Your task to perform on an android device: Open the calendar app, open the side menu, and click the "Day" option Image 0: 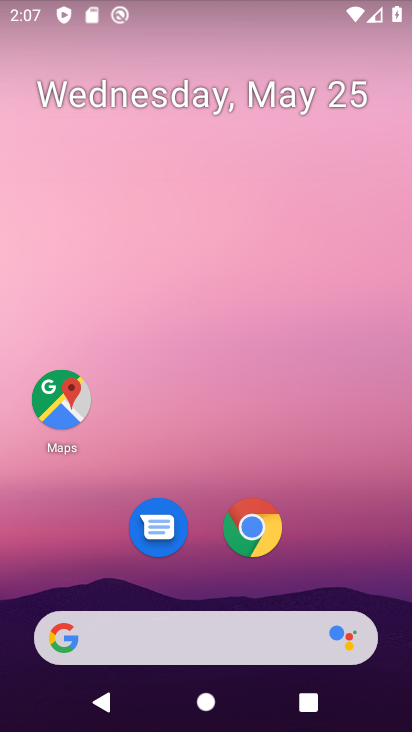
Step 0: click (261, 200)
Your task to perform on an android device: Open the calendar app, open the side menu, and click the "Day" option Image 1: 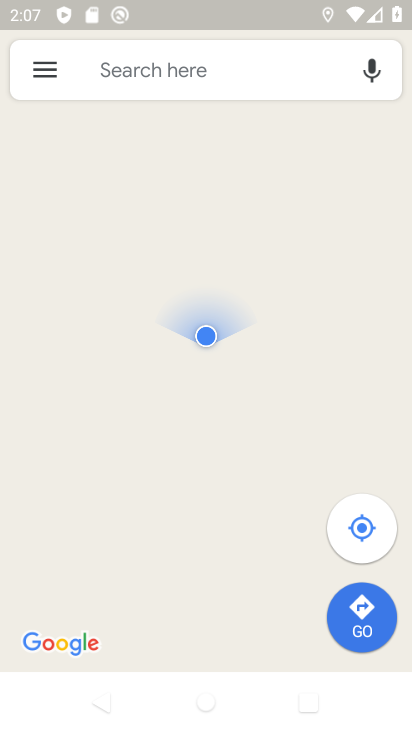
Step 1: press home button
Your task to perform on an android device: Open the calendar app, open the side menu, and click the "Day" option Image 2: 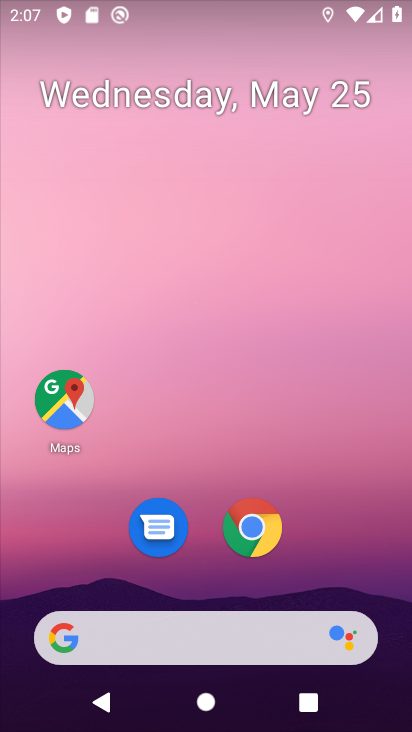
Step 2: drag from (311, 554) to (319, 148)
Your task to perform on an android device: Open the calendar app, open the side menu, and click the "Day" option Image 3: 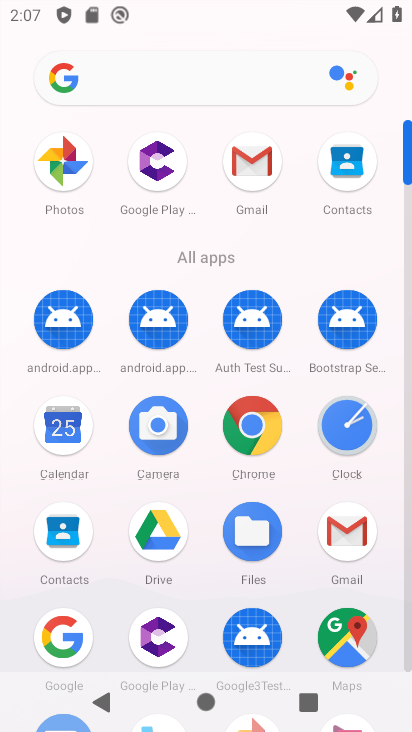
Step 3: drag from (68, 444) to (147, 206)
Your task to perform on an android device: Open the calendar app, open the side menu, and click the "Day" option Image 4: 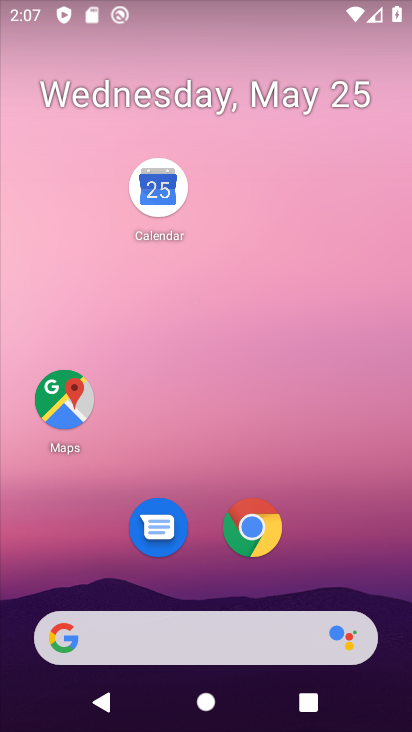
Step 4: click (171, 188)
Your task to perform on an android device: Open the calendar app, open the side menu, and click the "Day" option Image 5: 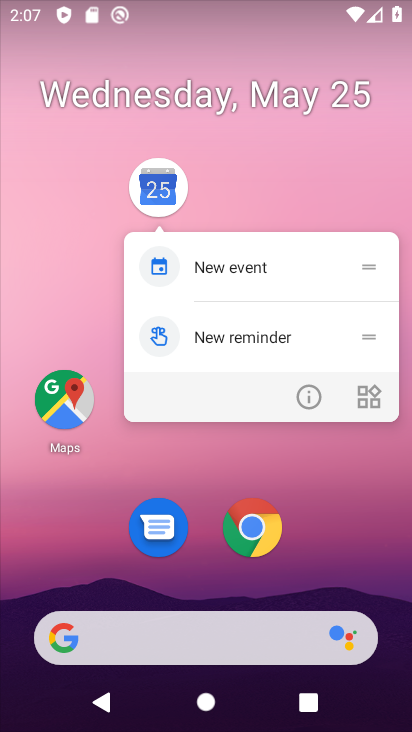
Step 5: click (158, 178)
Your task to perform on an android device: Open the calendar app, open the side menu, and click the "Day" option Image 6: 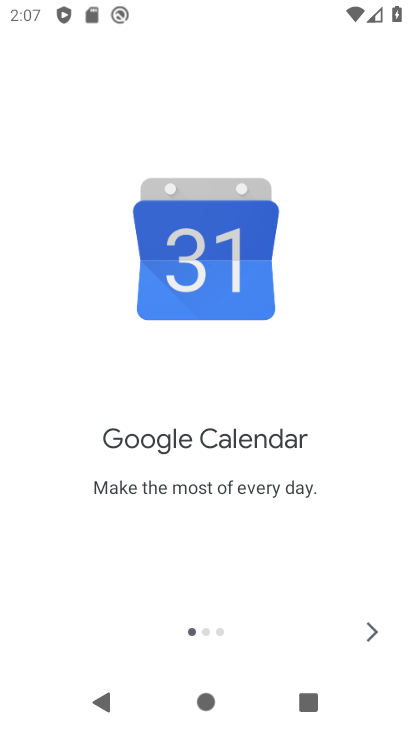
Step 6: click (366, 642)
Your task to perform on an android device: Open the calendar app, open the side menu, and click the "Day" option Image 7: 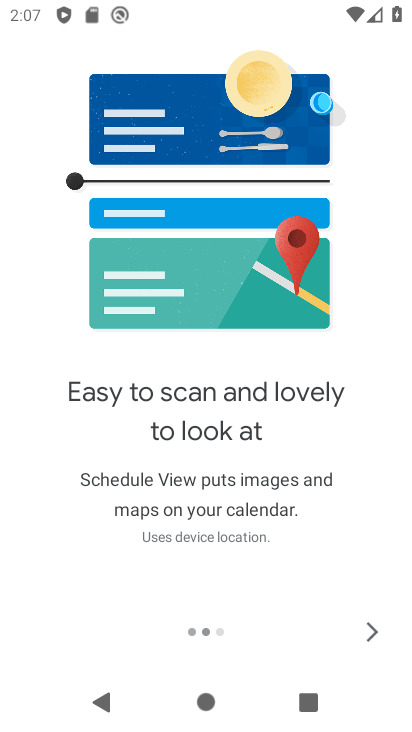
Step 7: click (369, 642)
Your task to perform on an android device: Open the calendar app, open the side menu, and click the "Day" option Image 8: 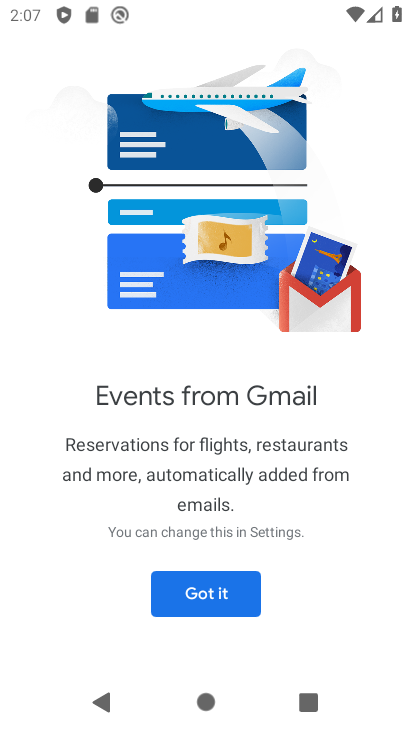
Step 8: click (173, 587)
Your task to perform on an android device: Open the calendar app, open the side menu, and click the "Day" option Image 9: 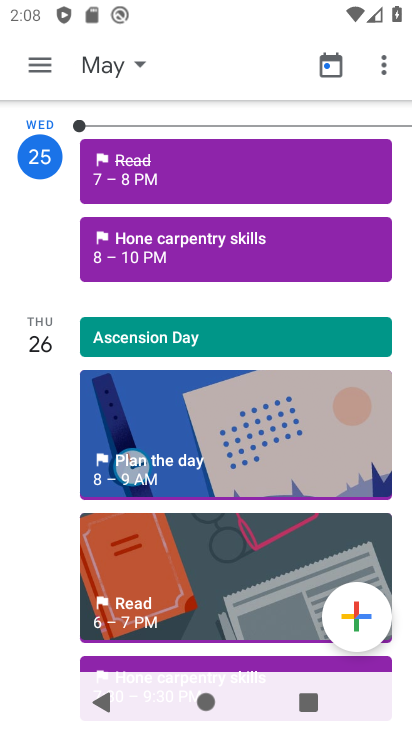
Step 9: click (46, 85)
Your task to perform on an android device: Open the calendar app, open the side menu, and click the "Day" option Image 10: 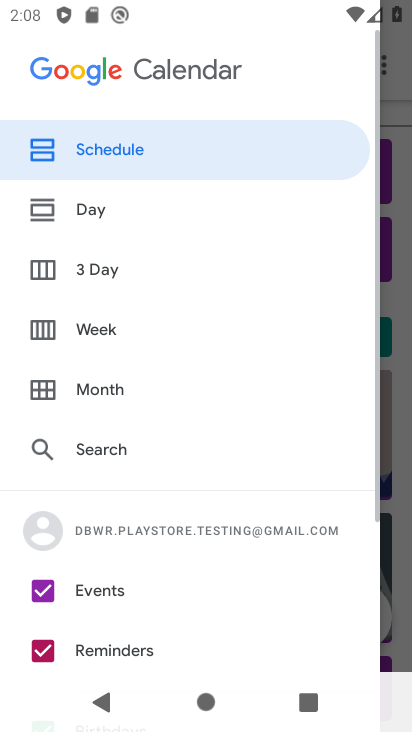
Step 10: click (83, 232)
Your task to perform on an android device: Open the calendar app, open the side menu, and click the "Day" option Image 11: 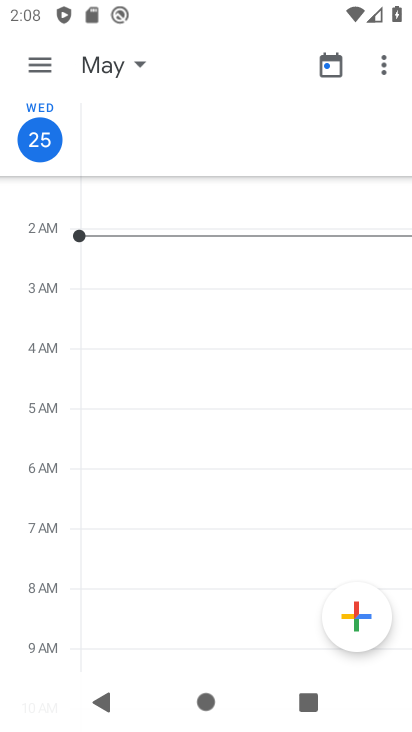
Step 11: task complete